Your task to perform on an android device: set an alarm Image 0: 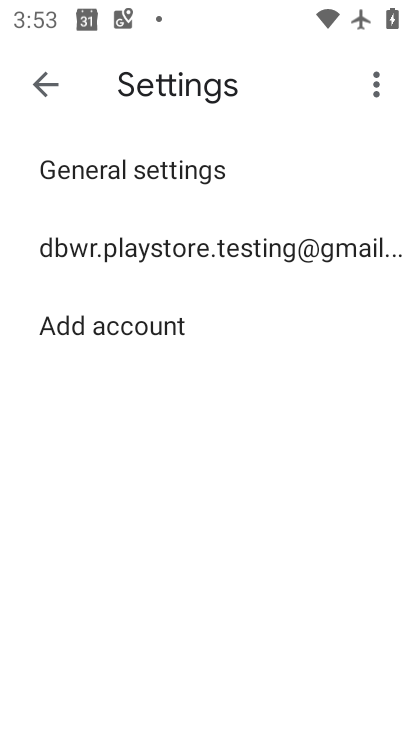
Step 0: press home button
Your task to perform on an android device: set an alarm Image 1: 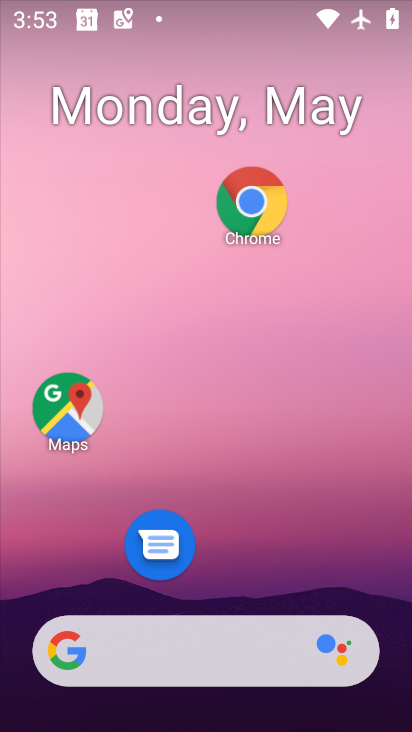
Step 1: drag from (240, 585) to (254, 174)
Your task to perform on an android device: set an alarm Image 2: 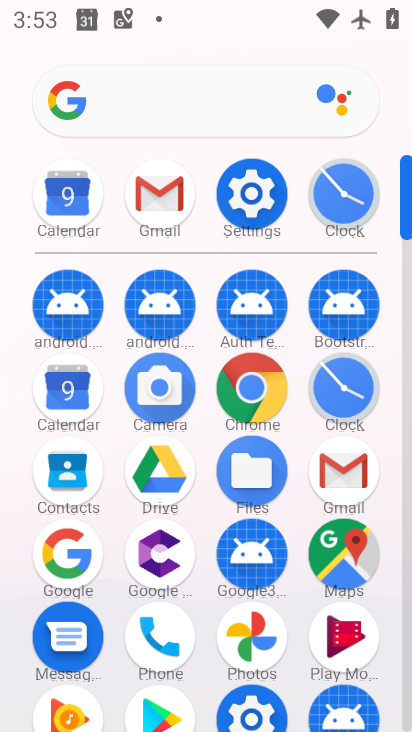
Step 2: click (340, 200)
Your task to perform on an android device: set an alarm Image 3: 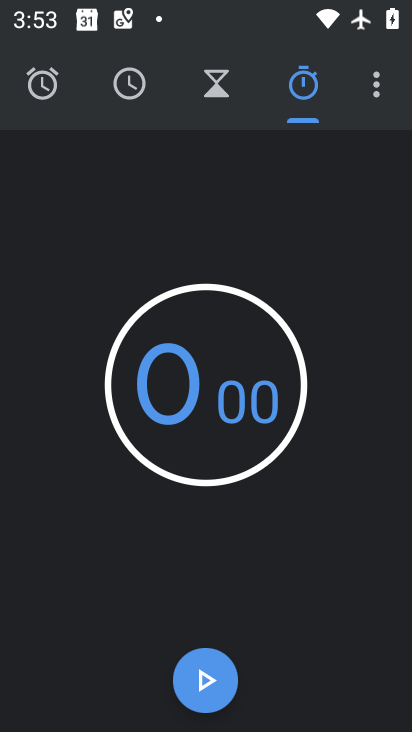
Step 3: click (37, 92)
Your task to perform on an android device: set an alarm Image 4: 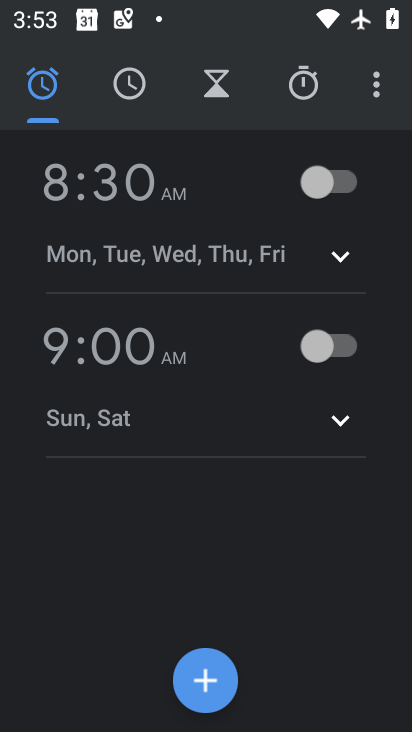
Step 4: click (341, 337)
Your task to perform on an android device: set an alarm Image 5: 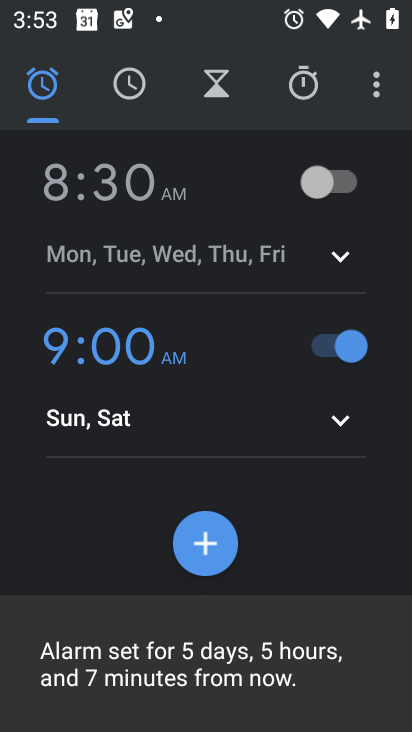
Step 5: task complete